Your task to perform on an android device: open app "Etsy: Buy & Sell Unique Items" (install if not already installed) Image 0: 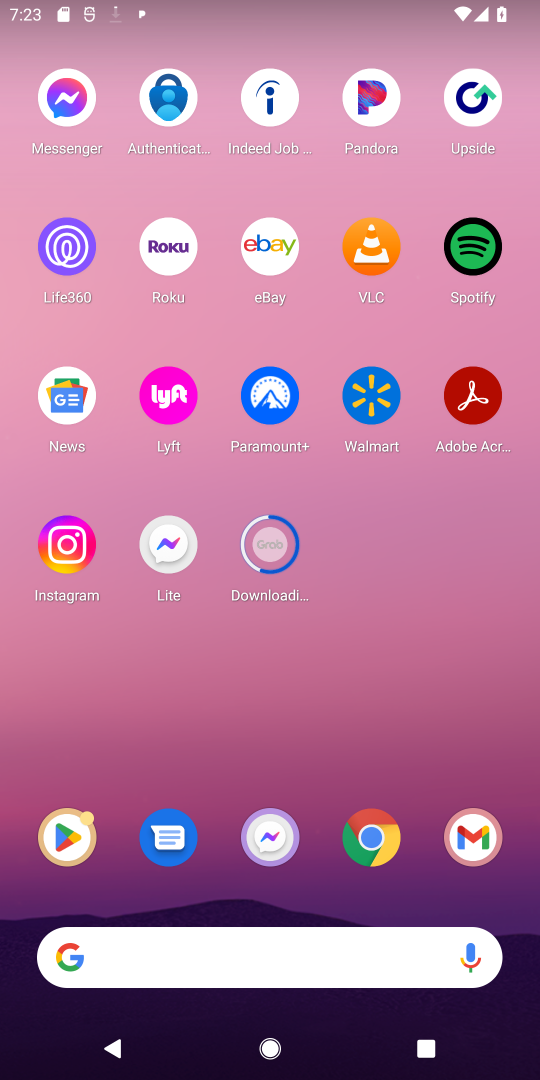
Step 0: click (67, 848)
Your task to perform on an android device: open app "Etsy: Buy & Sell Unique Items" (install if not already installed) Image 1: 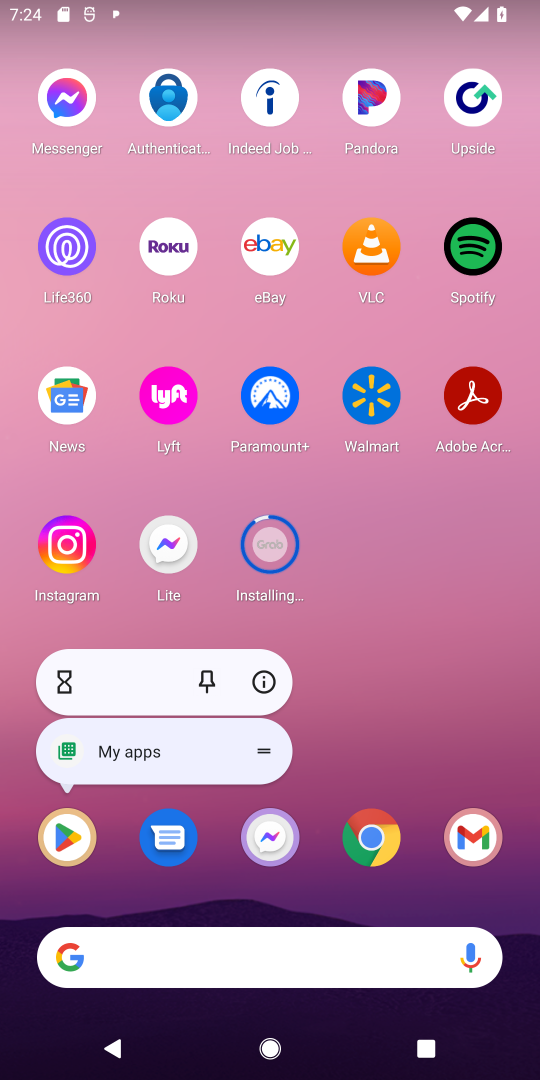
Step 1: click (71, 853)
Your task to perform on an android device: open app "Etsy: Buy & Sell Unique Items" (install if not already installed) Image 2: 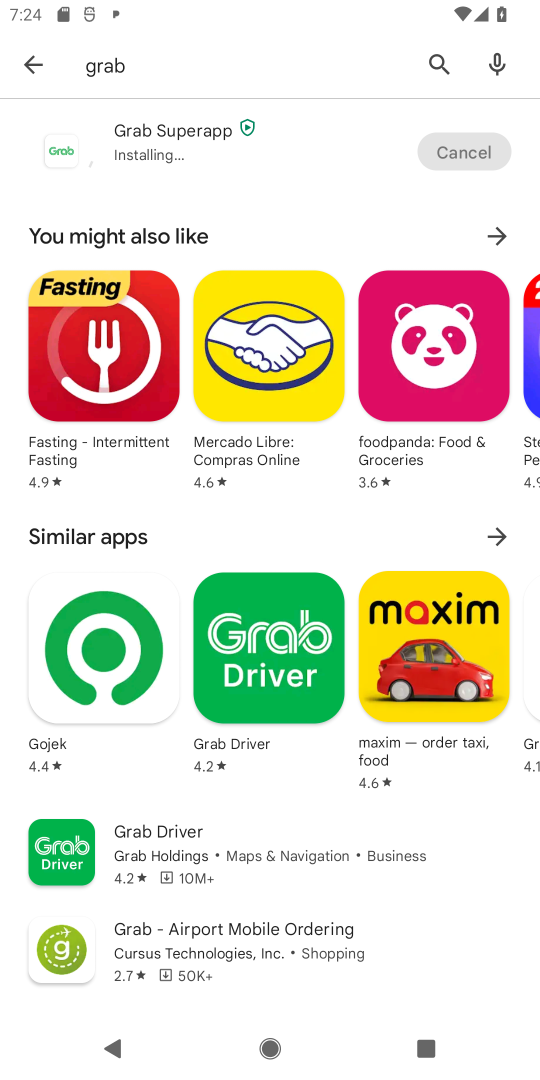
Step 2: click (427, 60)
Your task to perform on an android device: open app "Etsy: Buy & Sell Unique Items" (install if not already installed) Image 3: 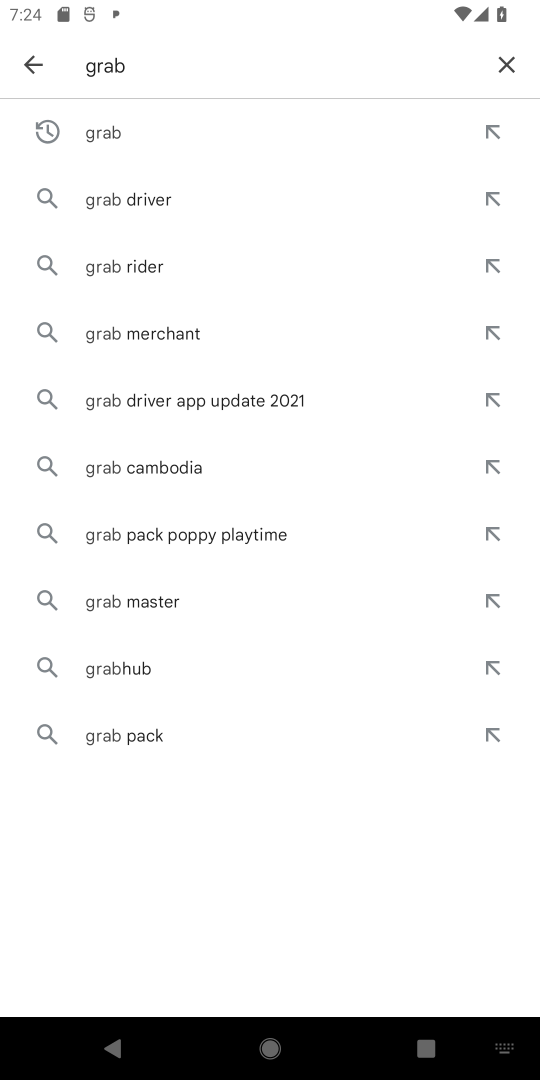
Step 3: click (498, 67)
Your task to perform on an android device: open app "Etsy: Buy & Sell Unique Items" (install if not already installed) Image 4: 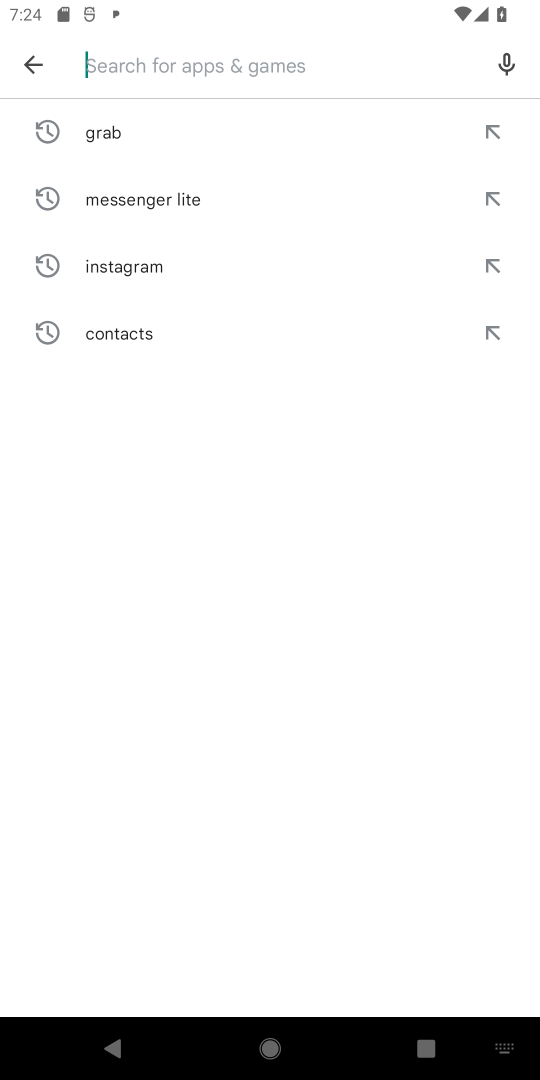
Step 4: type "Etsy: Buy & Sell Unique Items"
Your task to perform on an android device: open app "Etsy: Buy & Sell Unique Items" (install if not already installed) Image 5: 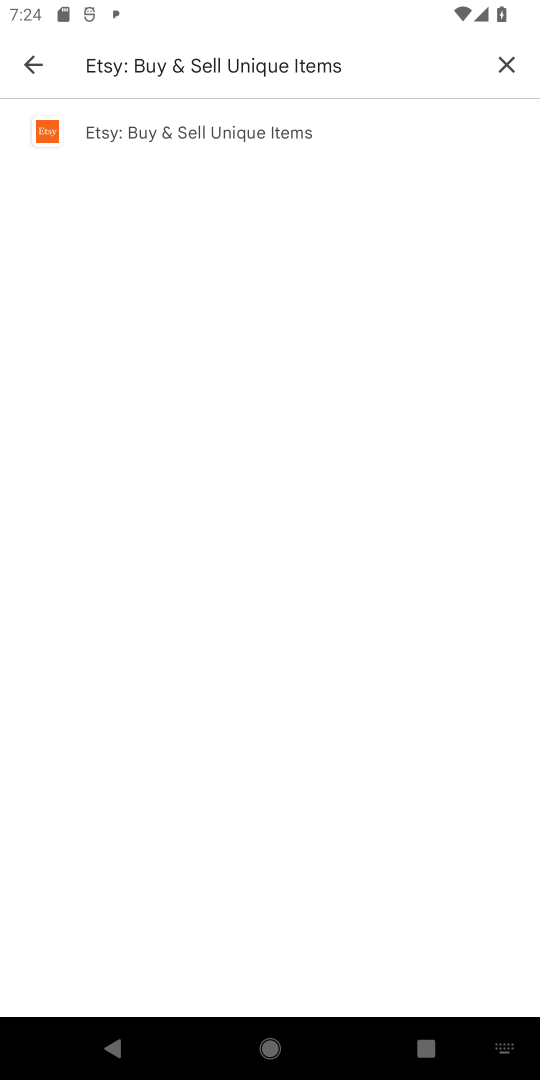
Step 5: click (245, 133)
Your task to perform on an android device: open app "Etsy: Buy & Sell Unique Items" (install if not already installed) Image 6: 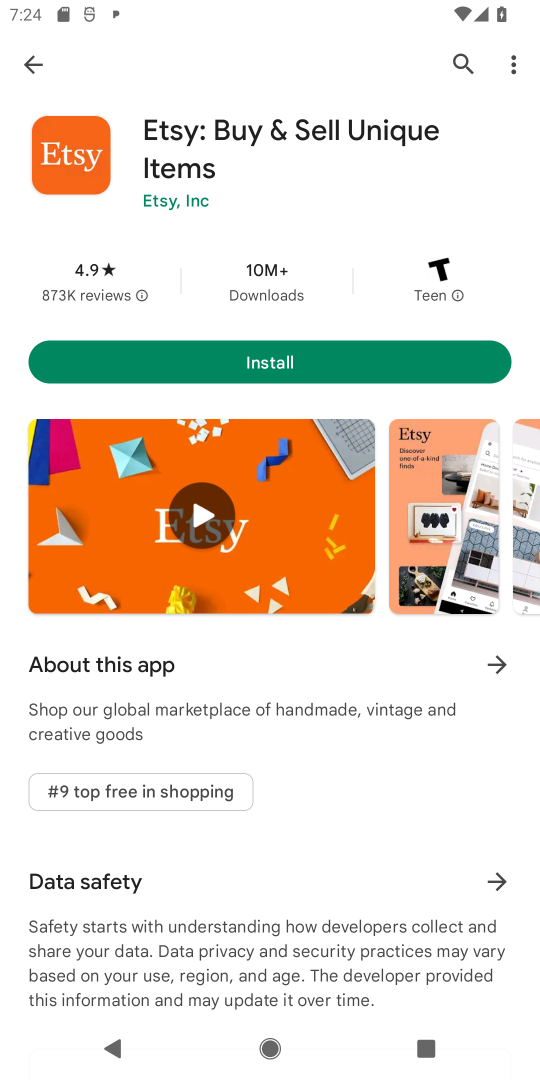
Step 6: click (246, 385)
Your task to perform on an android device: open app "Etsy: Buy & Sell Unique Items" (install if not already installed) Image 7: 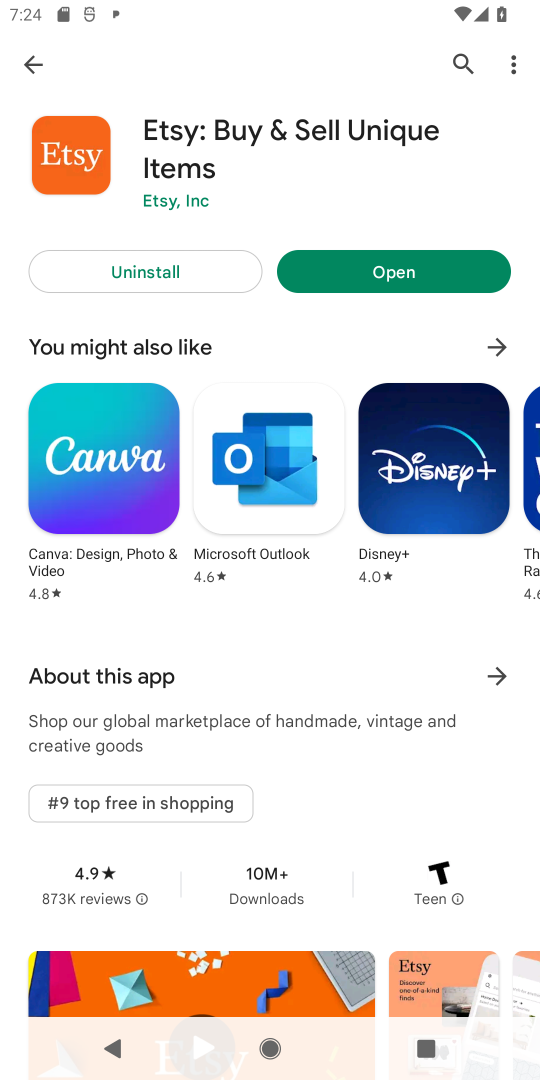
Step 7: click (376, 275)
Your task to perform on an android device: open app "Etsy: Buy & Sell Unique Items" (install if not already installed) Image 8: 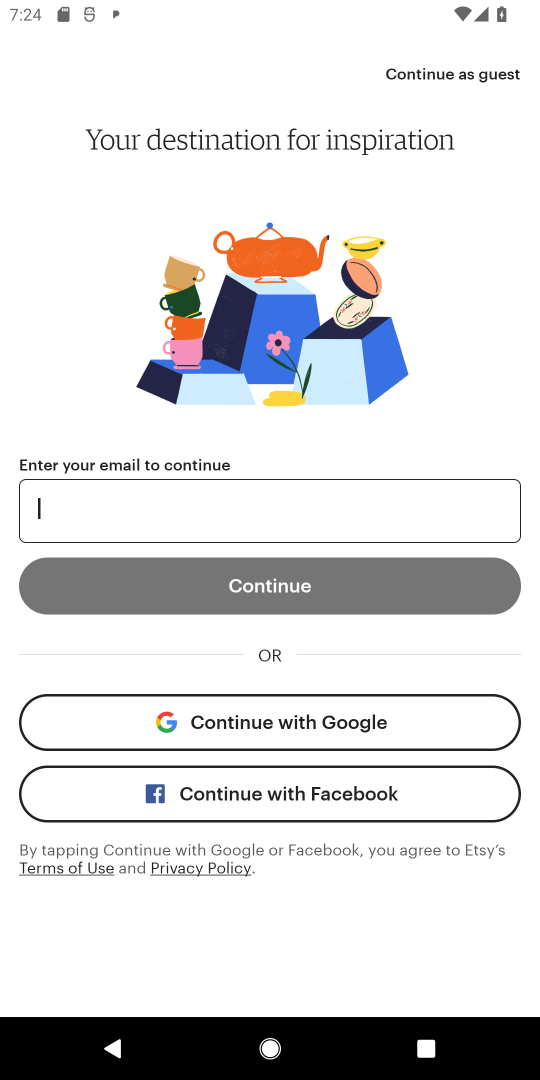
Step 8: task complete